Your task to perform on an android device: change the clock display to show seconds Image 0: 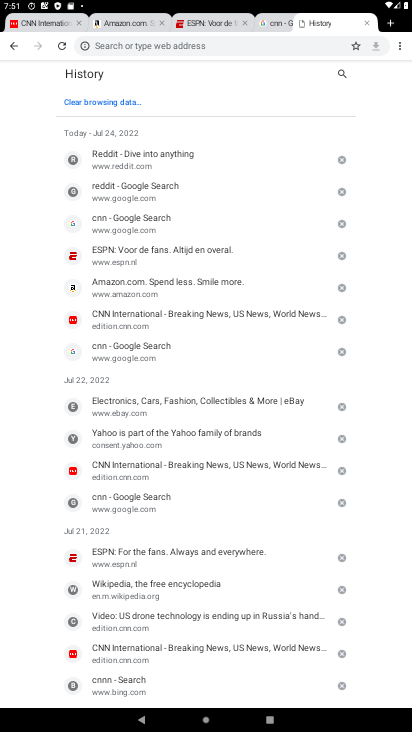
Step 0: press home button
Your task to perform on an android device: change the clock display to show seconds Image 1: 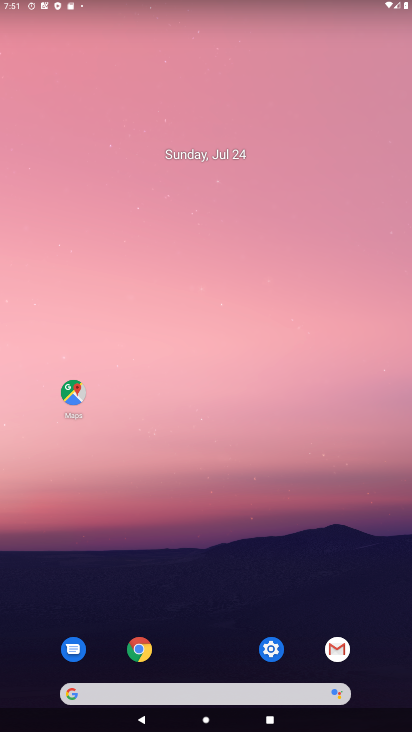
Step 1: drag from (247, 703) to (181, 249)
Your task to perform on an android device: change the clock display to show seconds Image 2: 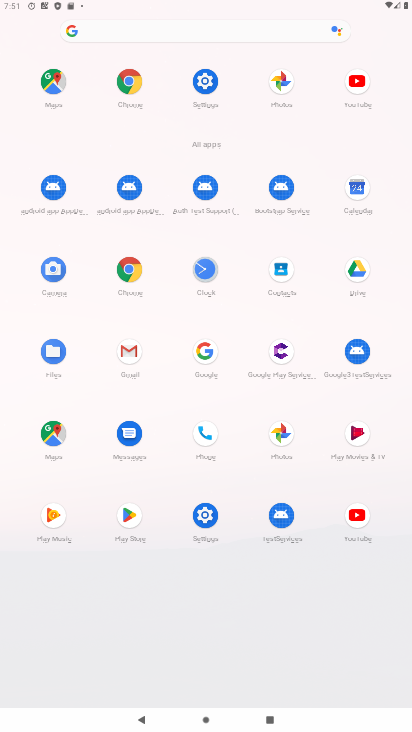
Step 2: click (210, 268)
Your task to perform on an android device: change the clock display to show seconds Image 3: 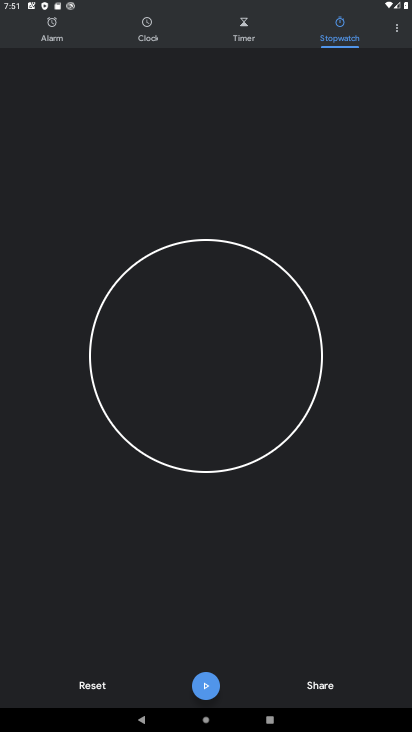
Step 3: click (399, 41)
Your task to perform on an android device: change the clock display to show seconds Image 4: 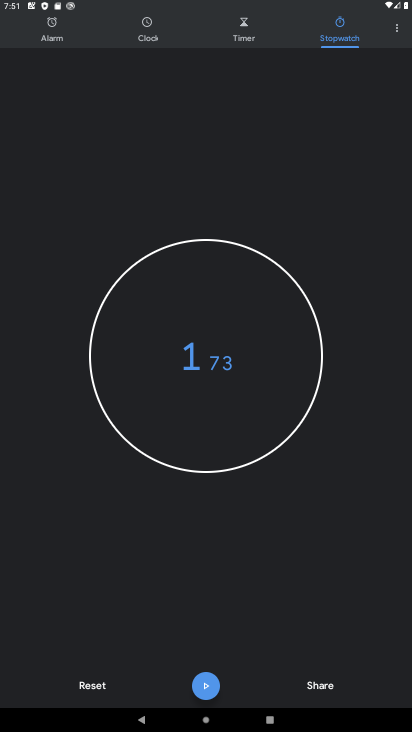
Step 4: click (394, 21)
Your task to perform on an android device: change the clock display to show seconds Image 5: 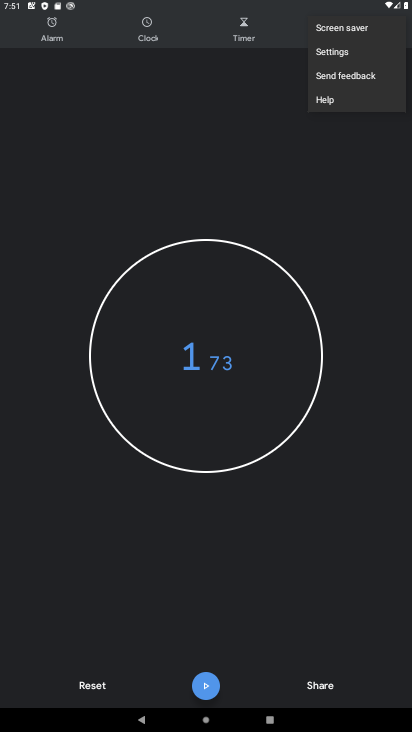
Step 5: click (340, 61)
Your task to perform on an android device: change the clock display to show seconds Image 6: 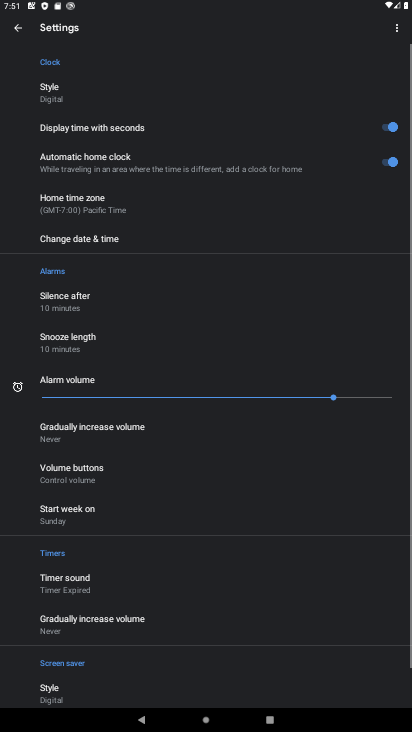
Step 6: click (357, 132)
Your task to perform on an android device: change the clock display to show seconds Image 7: 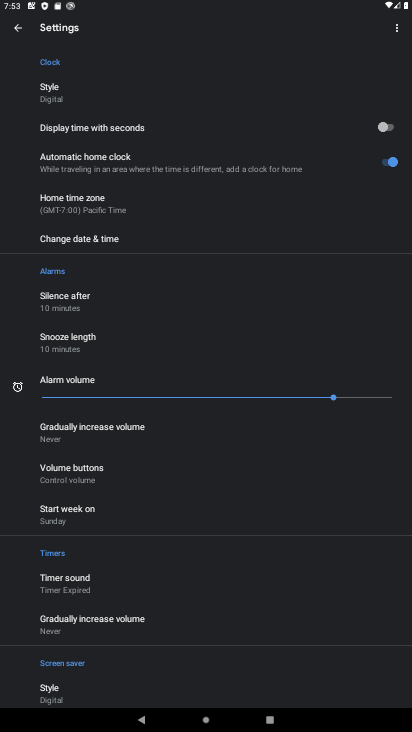
Step 7: task complete